Your task to perform on an android device: Go to Google maps Image 0: 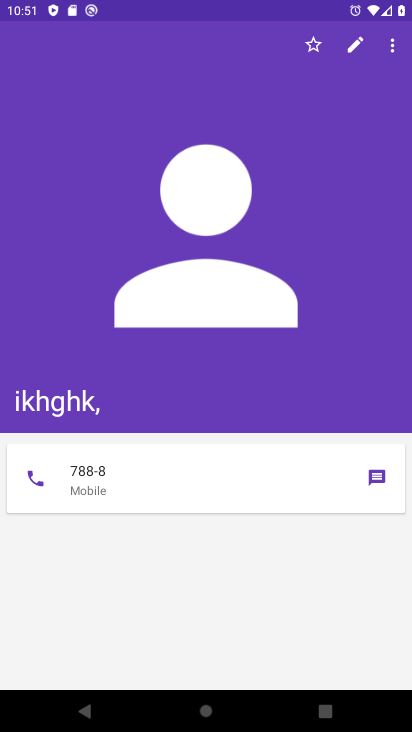
Step 0: press home button
Your task to perform on an android device: Go to Google maps Image 1: 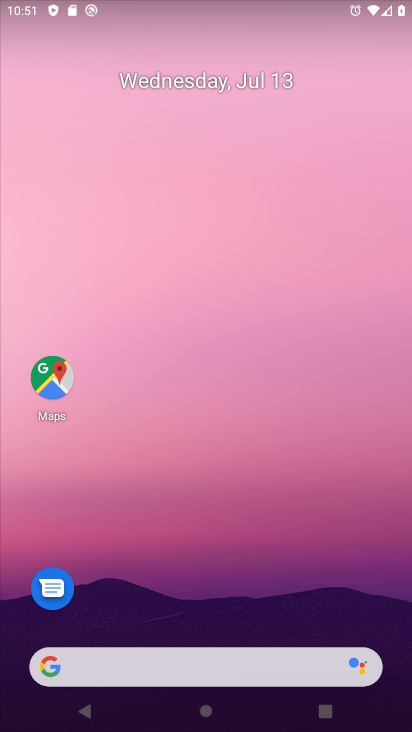
Step 1: click (64, 388)
Your task to perform on an android device: Go to Google maps Image 2: 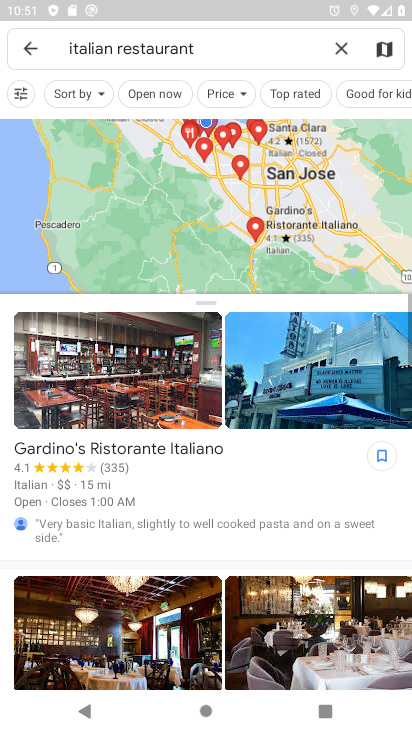
Step 2: task complete